Your task to perform on an android device: View the shopping cart on walmart. Add "logitech g933" to the cart on walmart, then select checkout. Image 0: 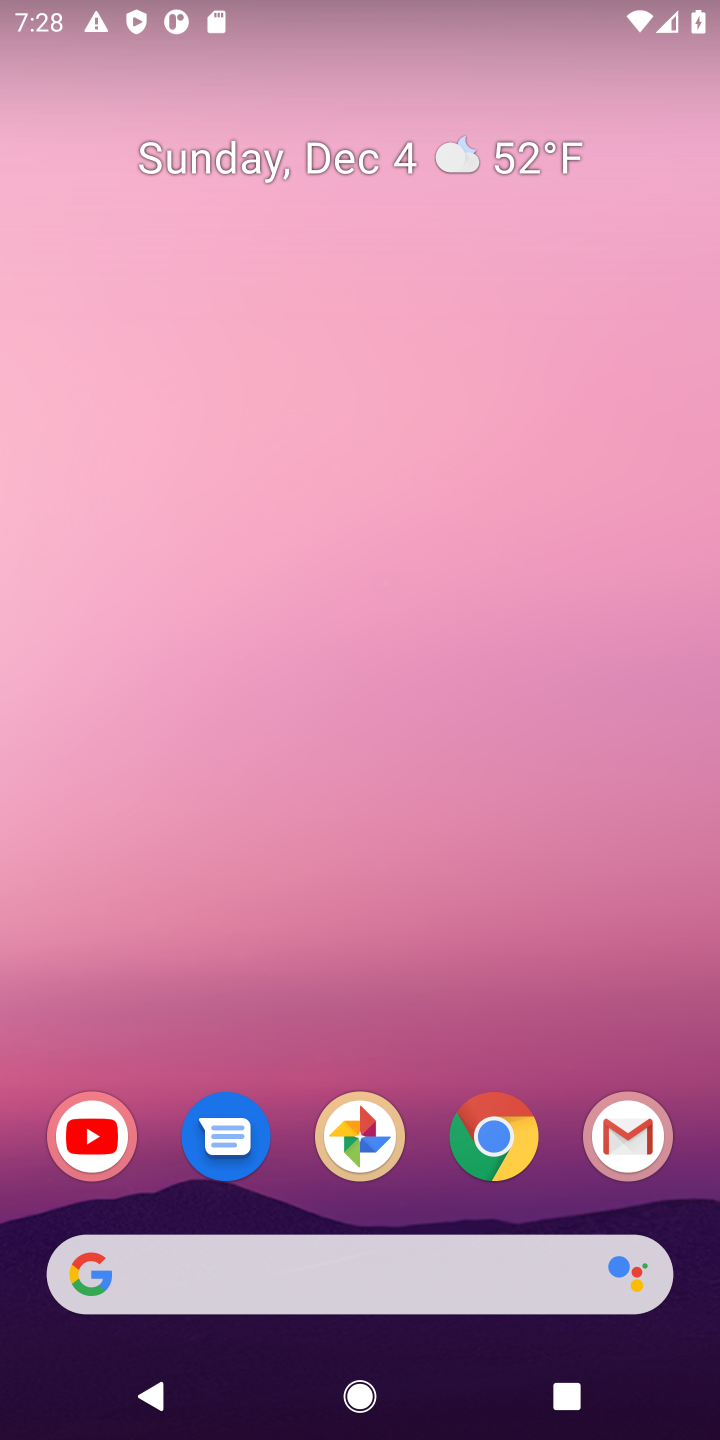
Step 0: click (487, 1139)
Your task to perform on an android device: View the shopping cart on walmart. Add "logitech g933" to the cart on walmart, then select checkout. Image 1: 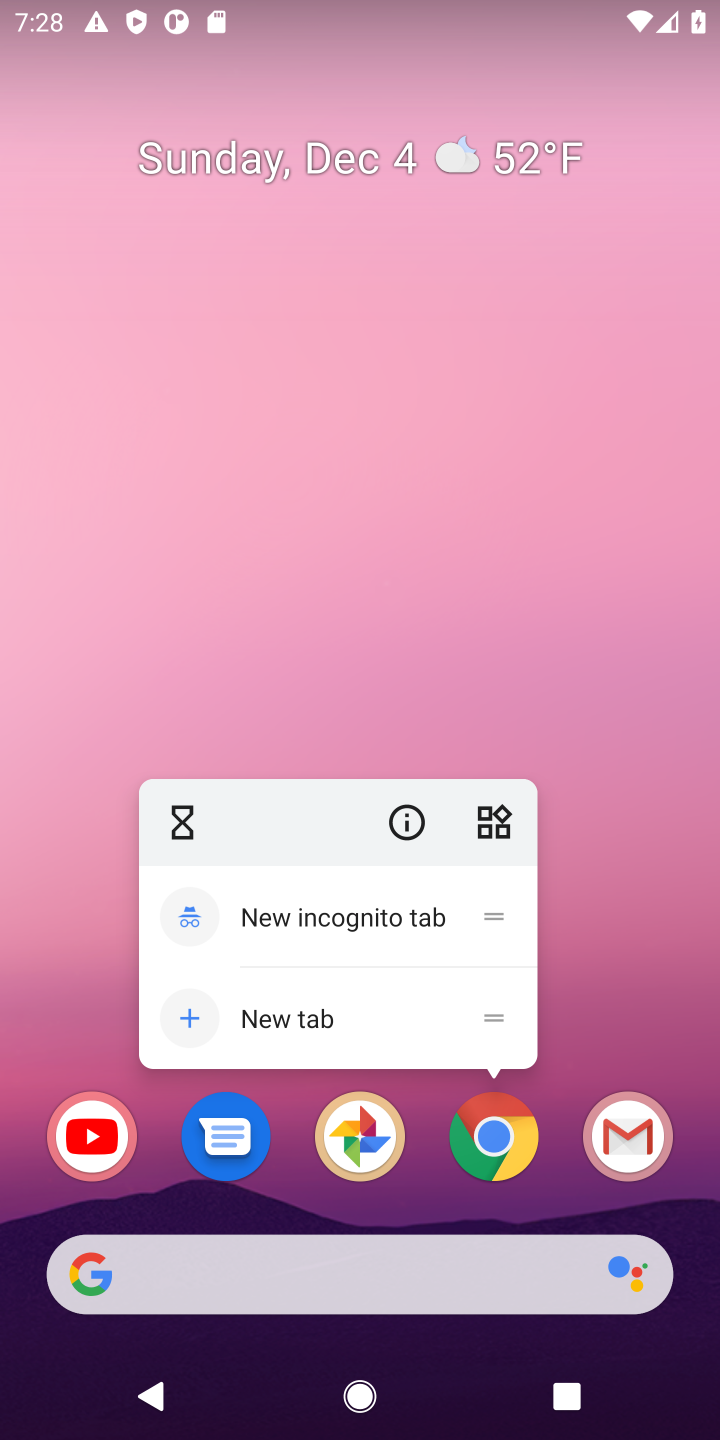
Step 1: click (487, 1139)
Your task to perform on an android device: View the shopping cart on walmart. Add "logitech g933" to the cart on walmart, then select checkout. Image 2: 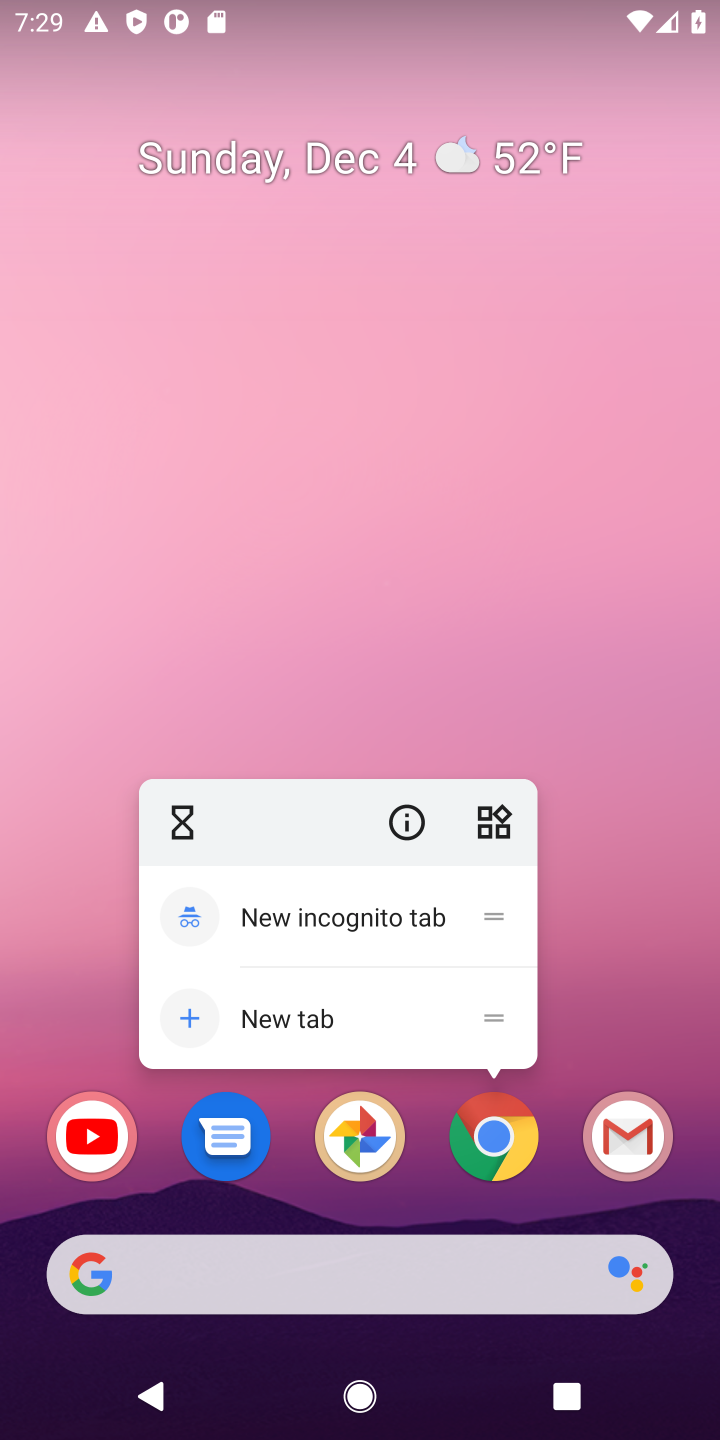
Step 2: click (495, 1146)
Your task to perform on an android device: View the shopping cart on walmart. Add "logitech g933" to the cart on walmart, then select checkout. Image 3: 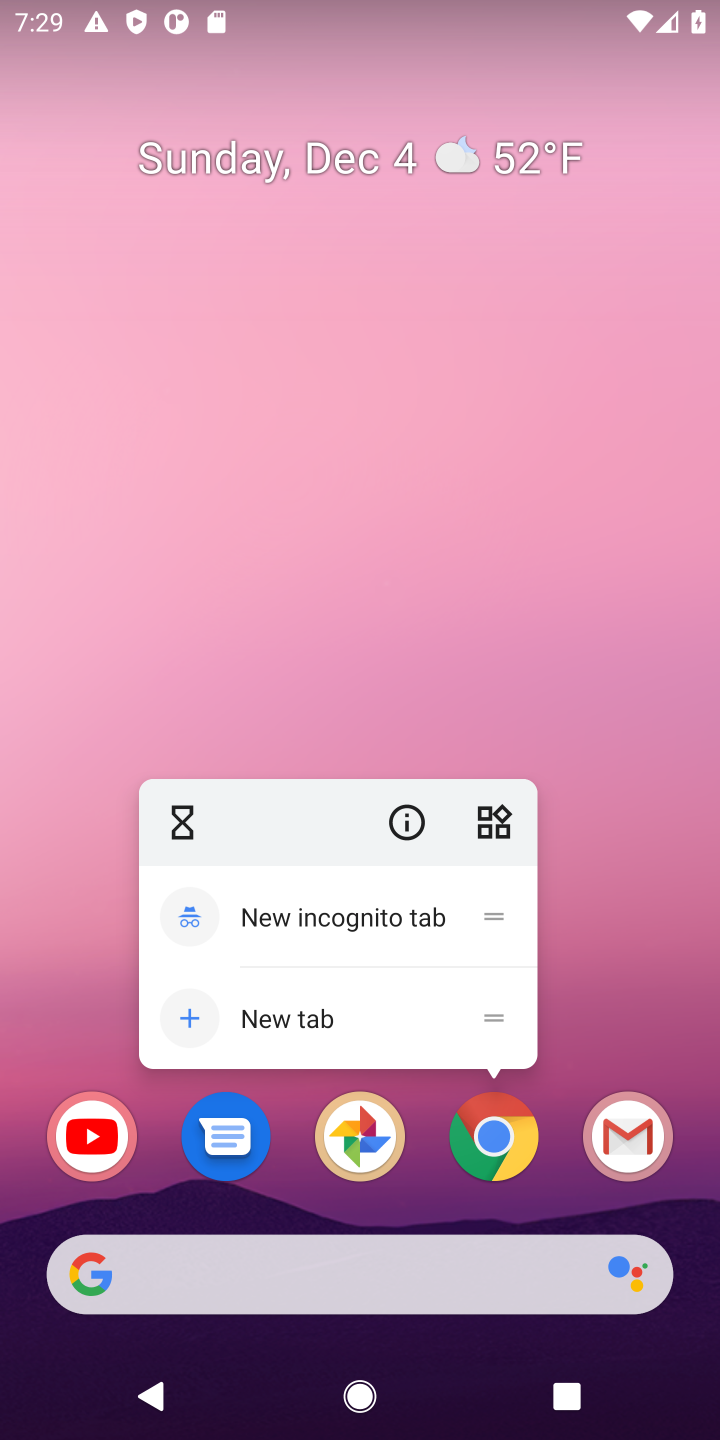
Step 3: click (495, 1146)
Your task to perform on an android device: View the shopping cart on walmart. Add "logitech g933" to the cart on walmart, then select checkout. Image 4: 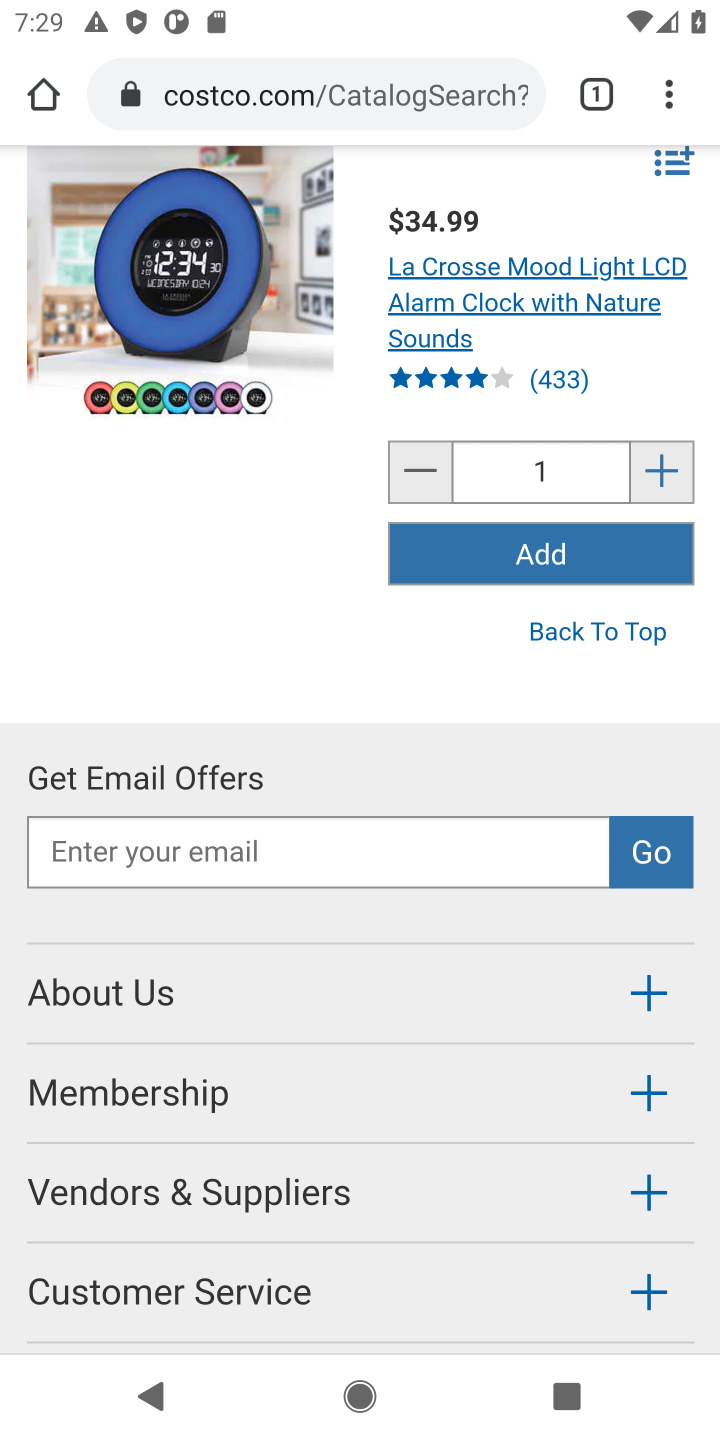
Step 4: click (327, 104)
Your task to perform on an android device: View the shopping cart on walmart. Add "logitech g933" to the cart on walmart, then select checkout. Image 5: 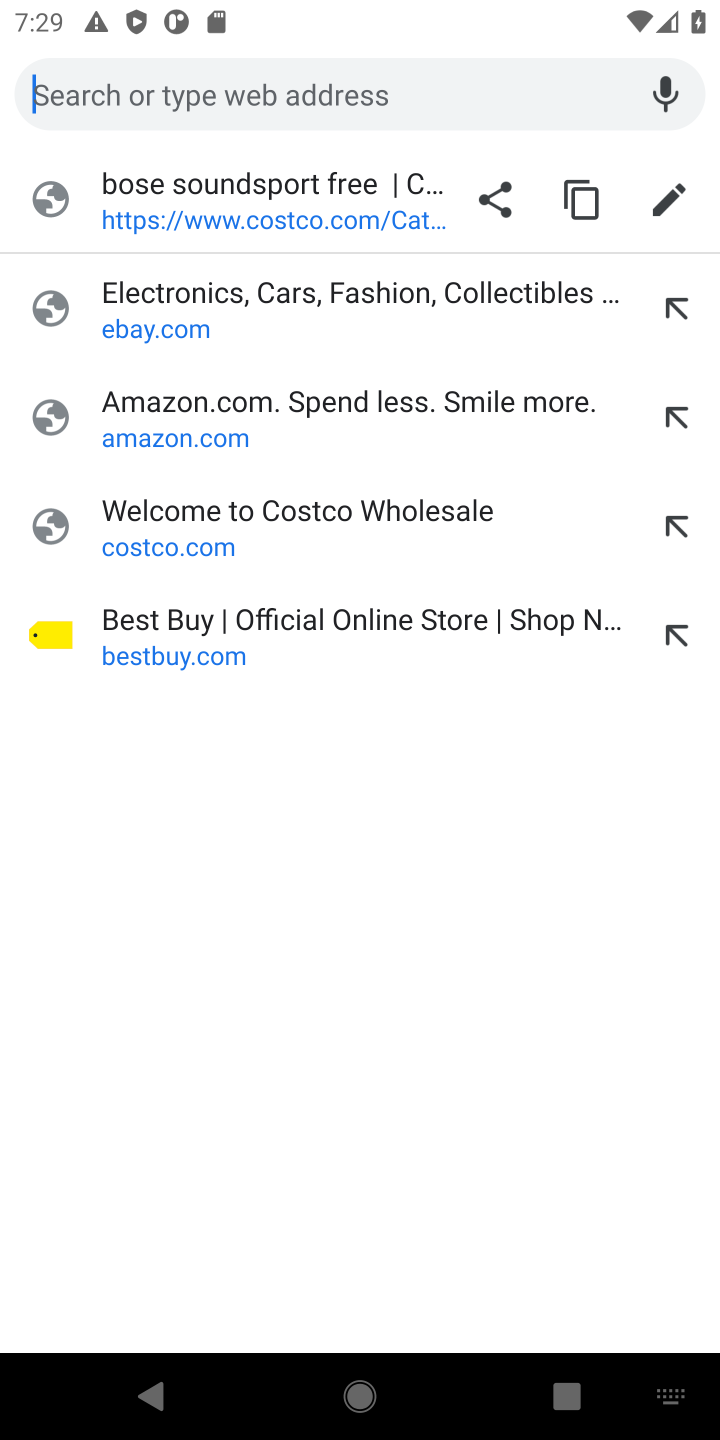
Step 5: type "walmart.com"
Your task to perform on an android device: View the shopping cart on walmart. Add "logitech g933" to the cart on walmart, then select checkout. Image 6: 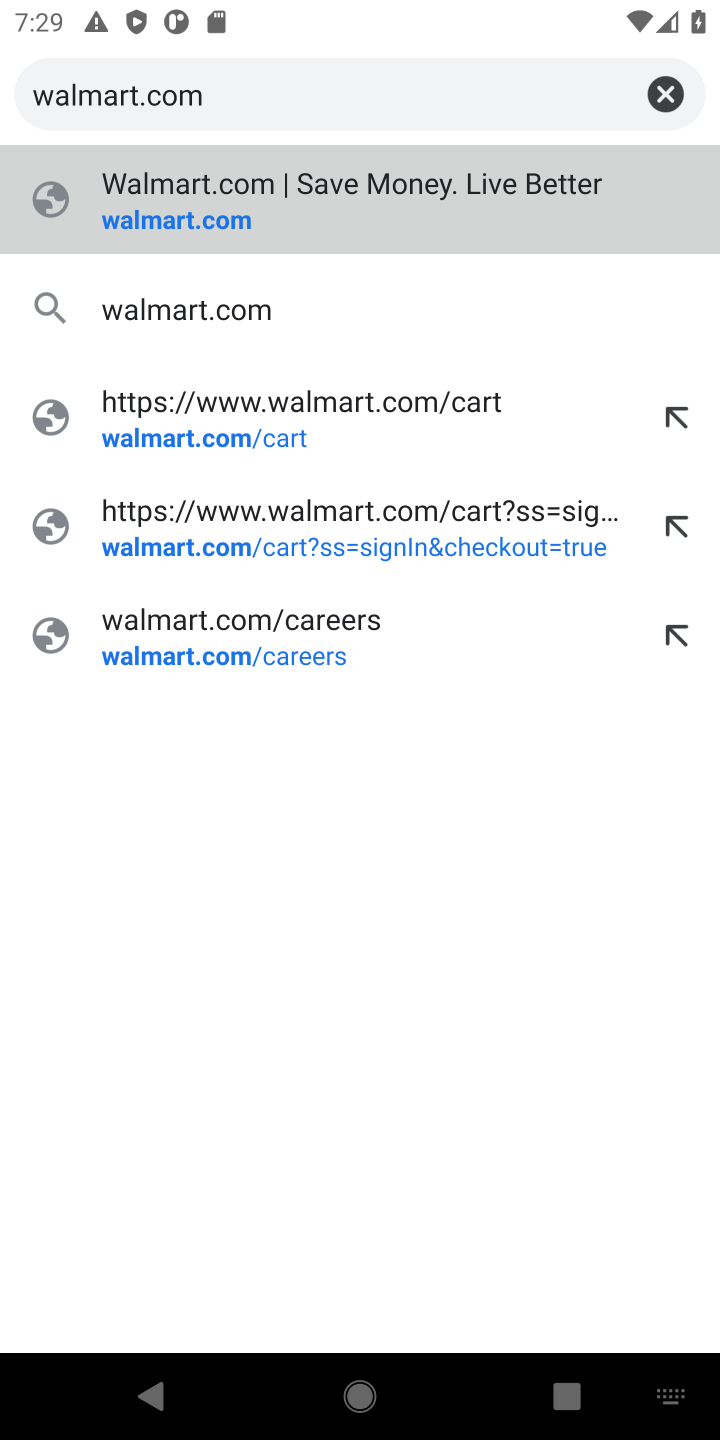
Step 6: click (124, 200)
Your task to perform on an android device: View the shopping cart on walmart. Add "logitech g933" to the cart on walmart, then select checkout. Image 7: 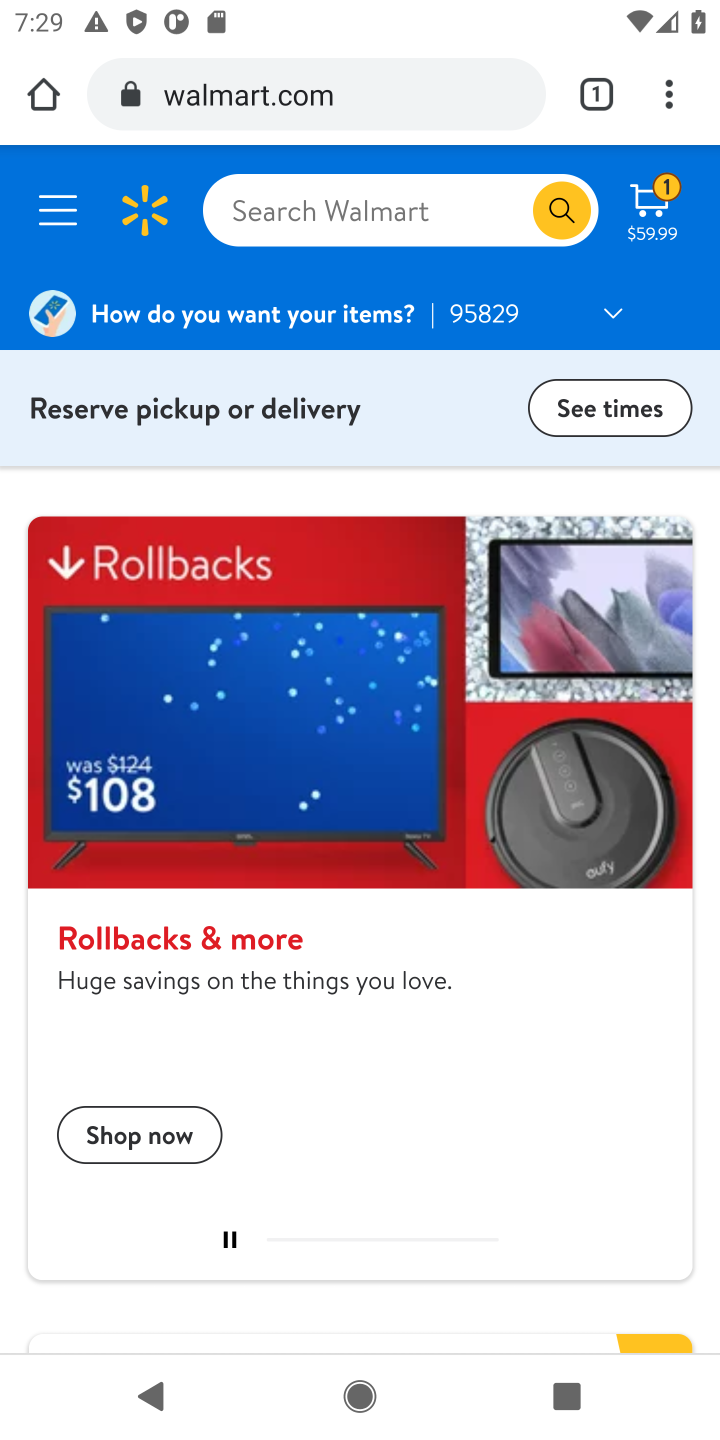
Step 7: click (651, 192)
Your task to perform on an android device: View the shopping cart on walmart. Add "logitech g933" to the cart on walmart, then select checkout. Image 8: 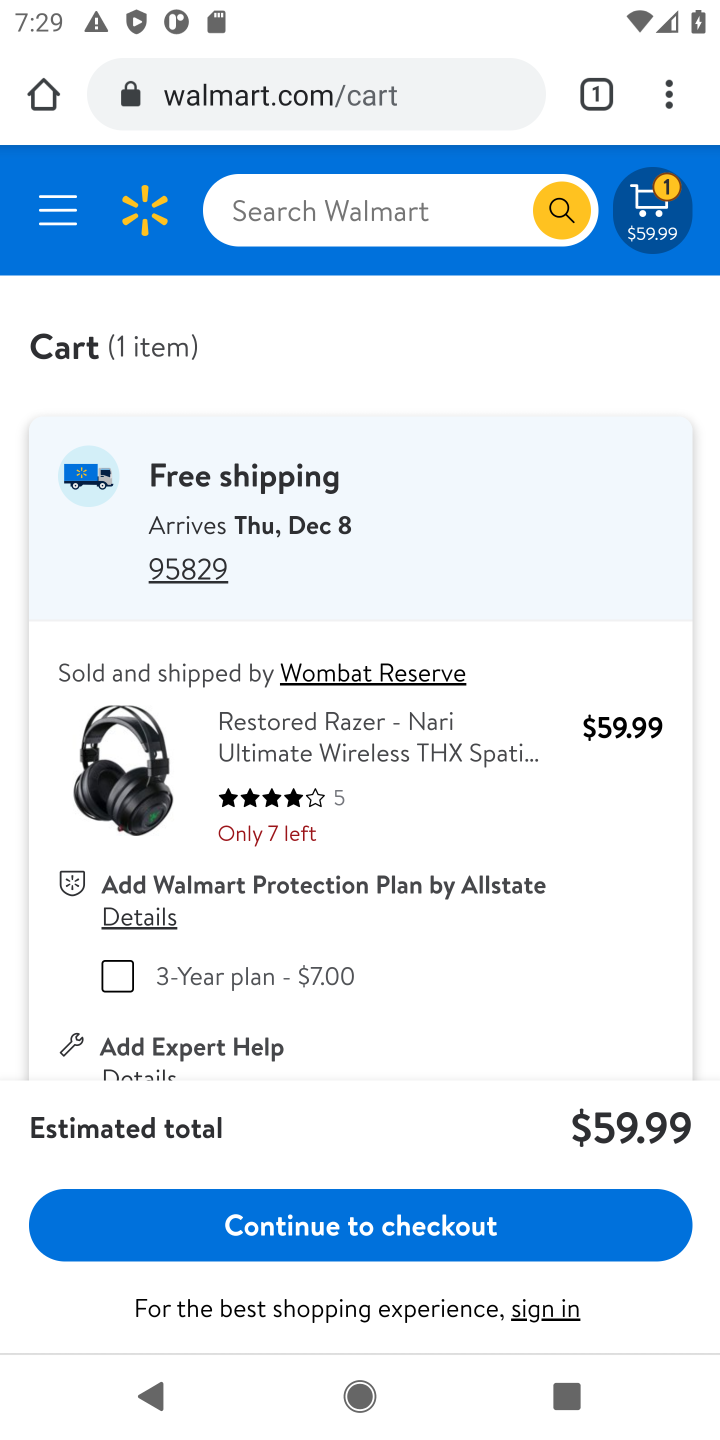
Step 8: click (324, 217)
Your task to perform on an android device: View the shopping cart on walmart. Add "logitech g933" to the cart on walmart, then select checkout. Image 9: 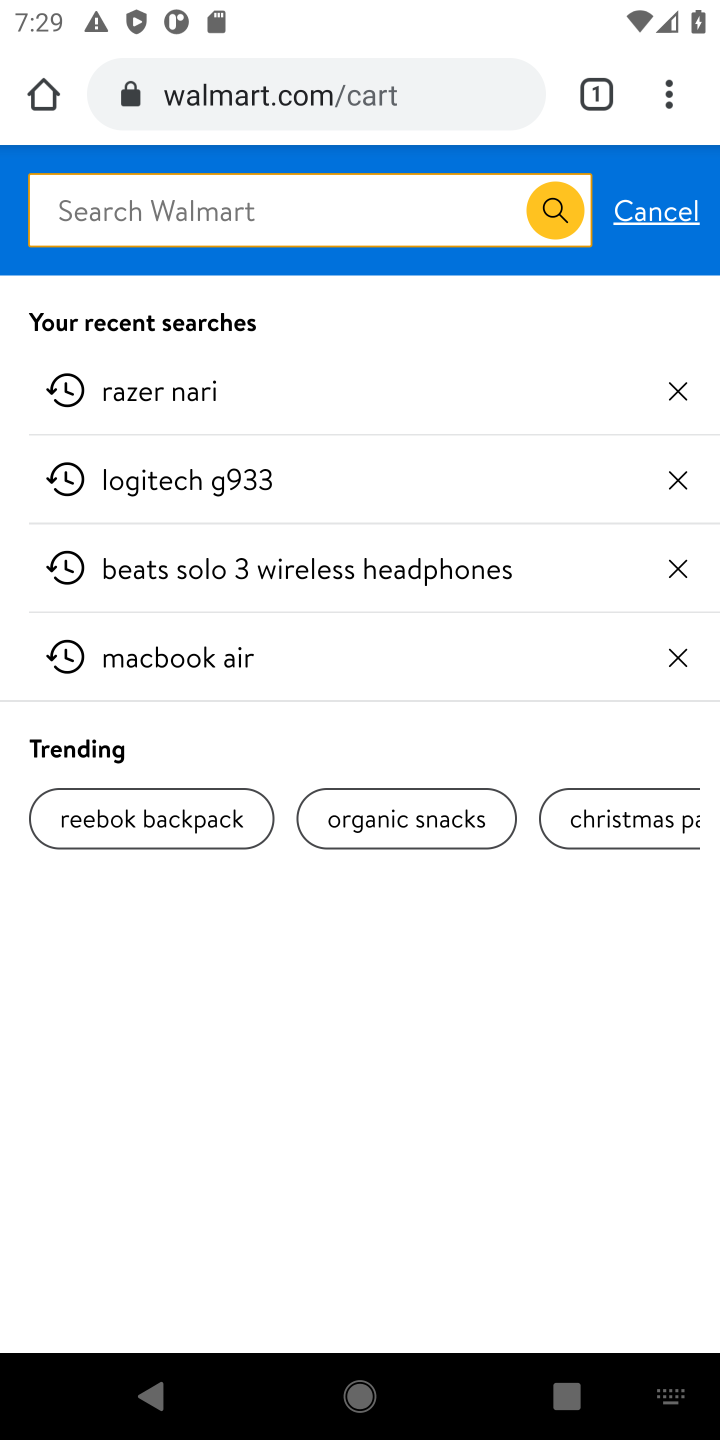
Step 9: type "logitech g933"
Your task to perform on an android device: View the shopping cart on walmart. Add "logitech g933" to the cart on walmart, then select checkout. Image 10: 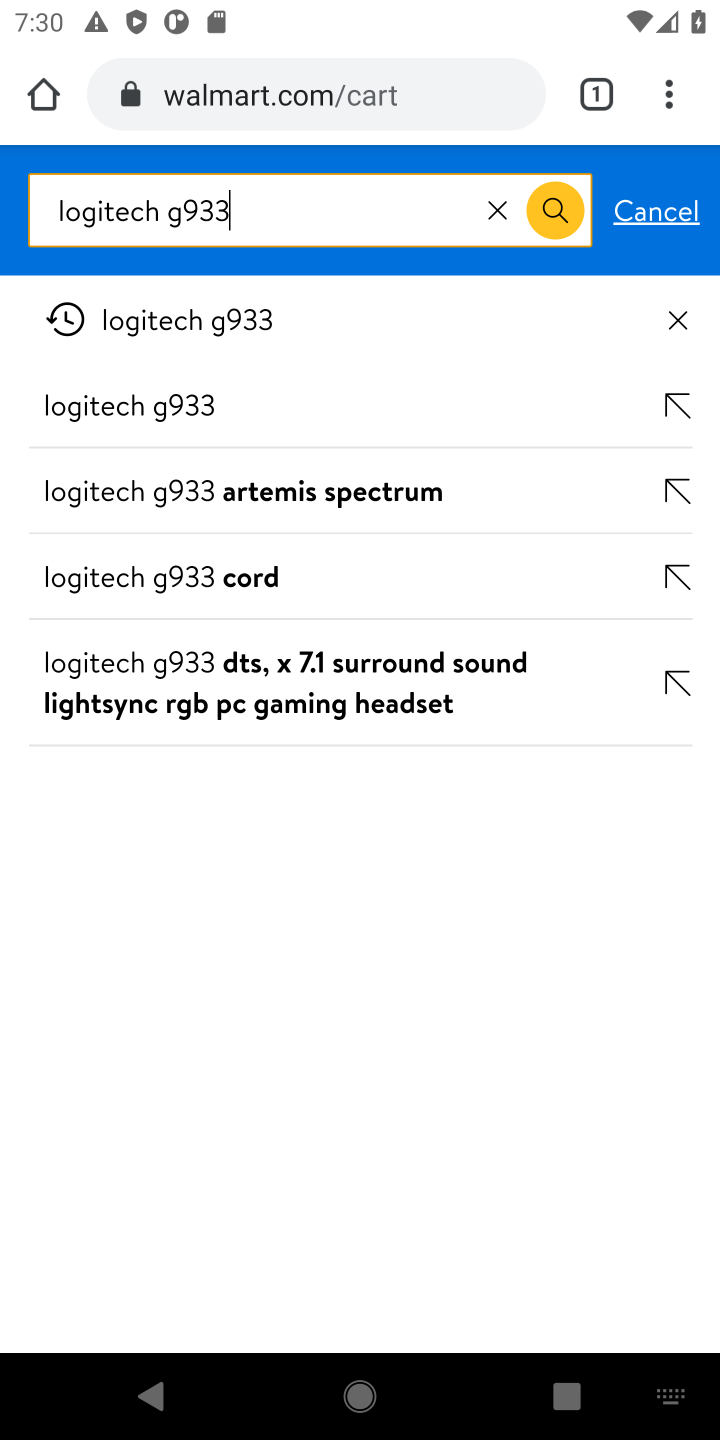
Step 10: click (215, 320)
Your task to perform on an android device: View the shopping cart on walmart. Add "logitech g933" to the cart on walmart, then select checkout. Image 11: 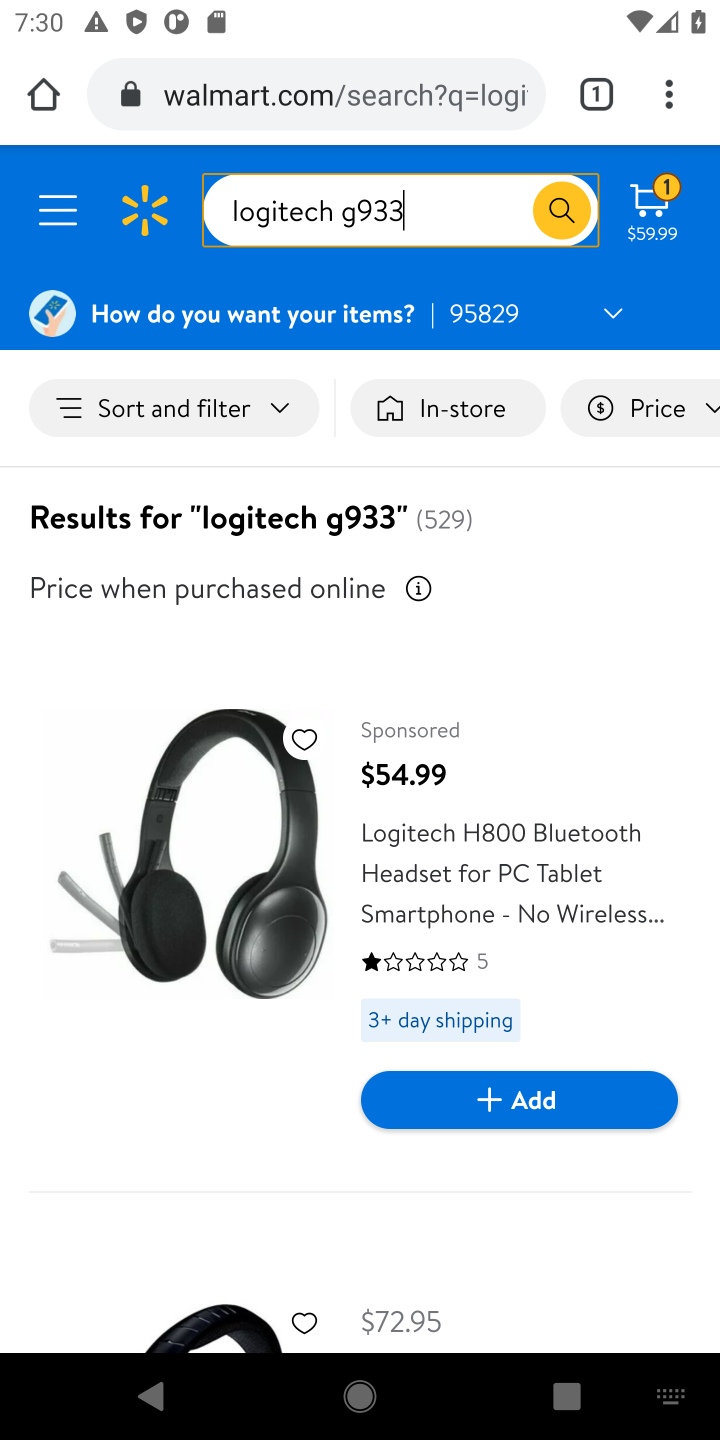
Step 11: drag from (526, 756) to (584, 437)
Your task to perform on an android device: View the shopping cart on walmart. Add "logitech g933" to the cart on walmart, then select checkout. Image 12: 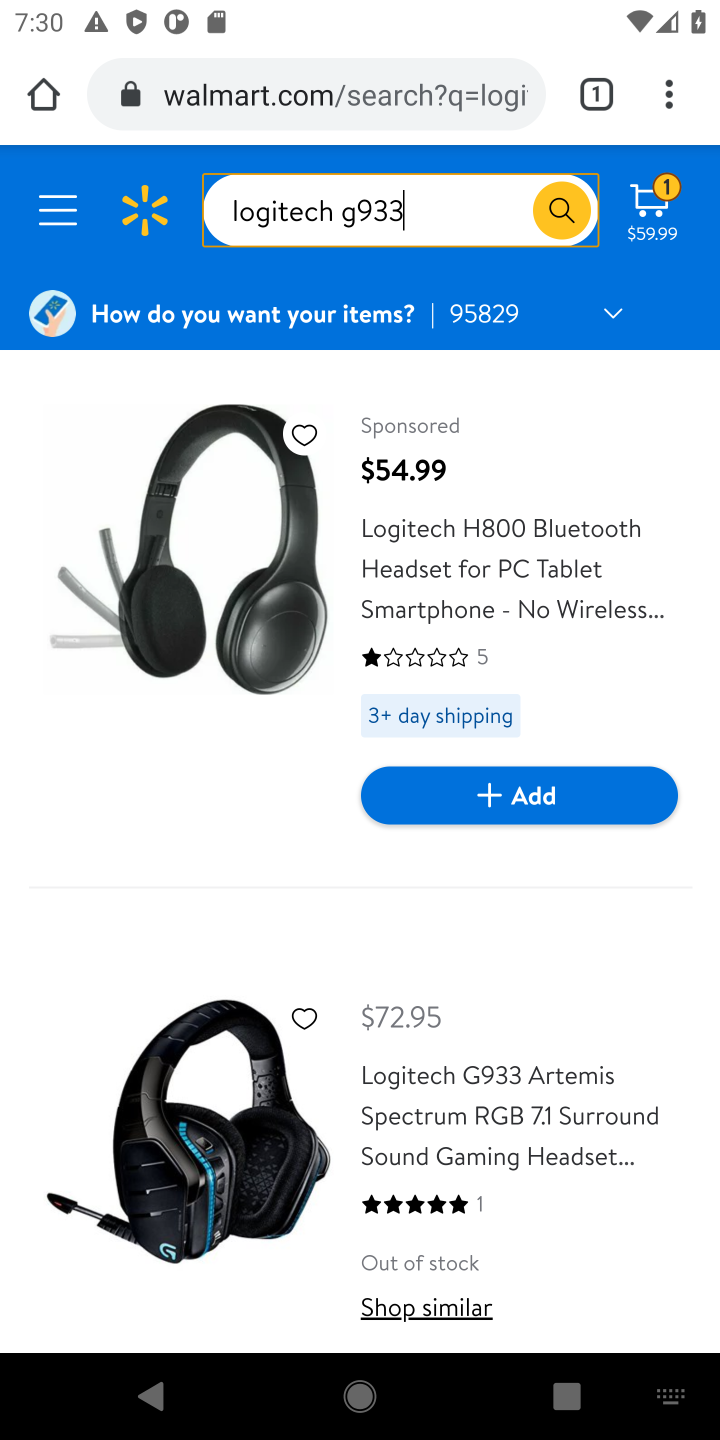
Step 12: drag from (528, 901) to (549, 567)
Your task to perform on an android device: View the shopping cart on walmart. Add "logitech g933" to the cart on walmart, then select checkout. Image 13: 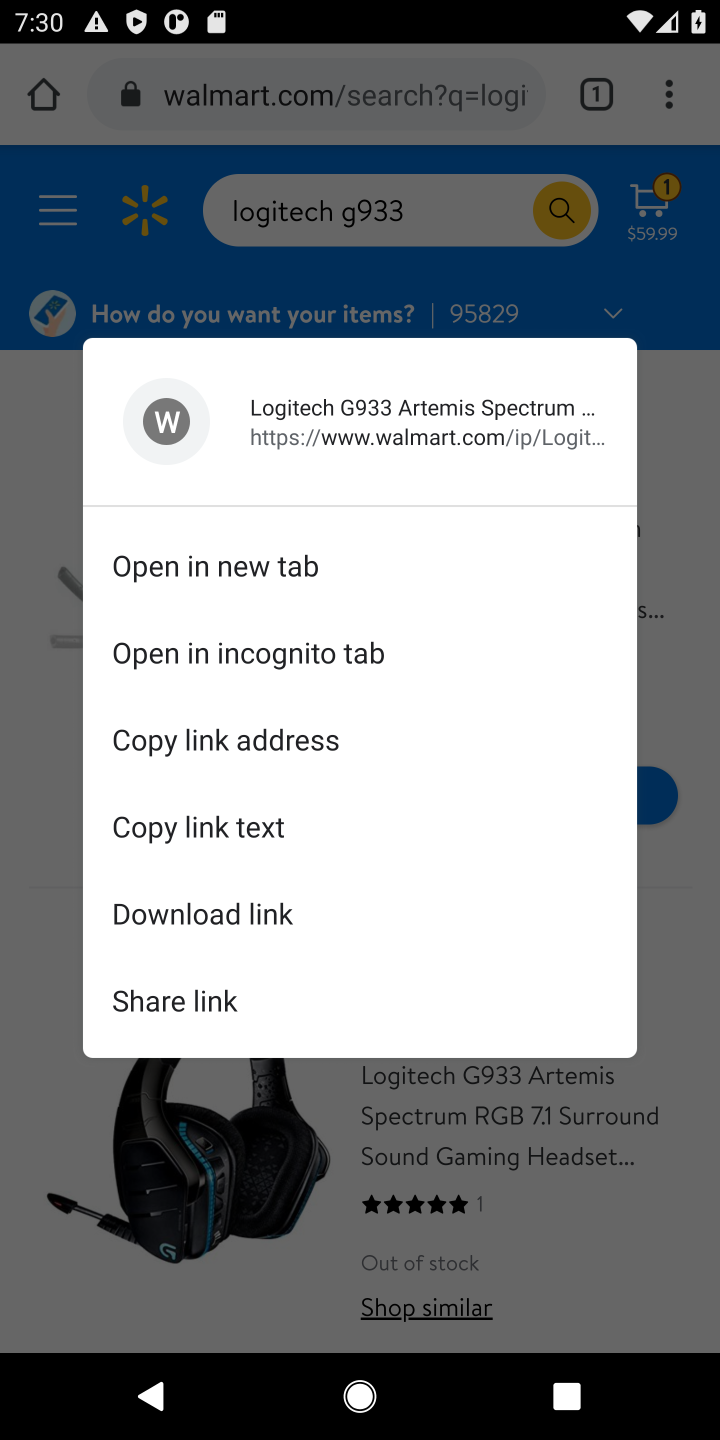
Step 13: drag from (656, 1148) to (717, 506)
Your task to perform on an android device: View the shopping cart on walmart. Add "logitech g933" to the cart on walmart, then select checkout. Image 14: 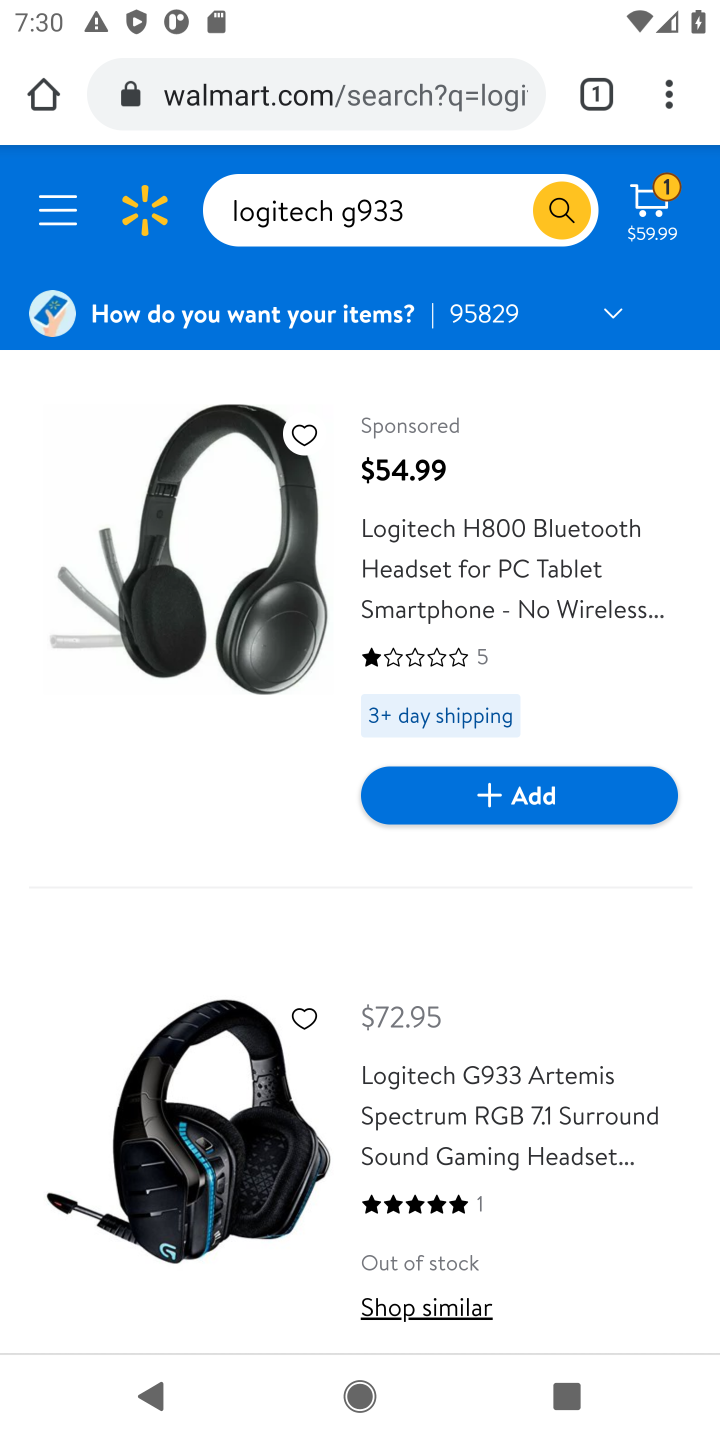
Step 14: drag from (633, 1056) to (629, 491)
Your task to perform on an android device: View the shopping cart on walmart. Add "logitech g933" to the cart on walmart, then select checkout. Image 15: 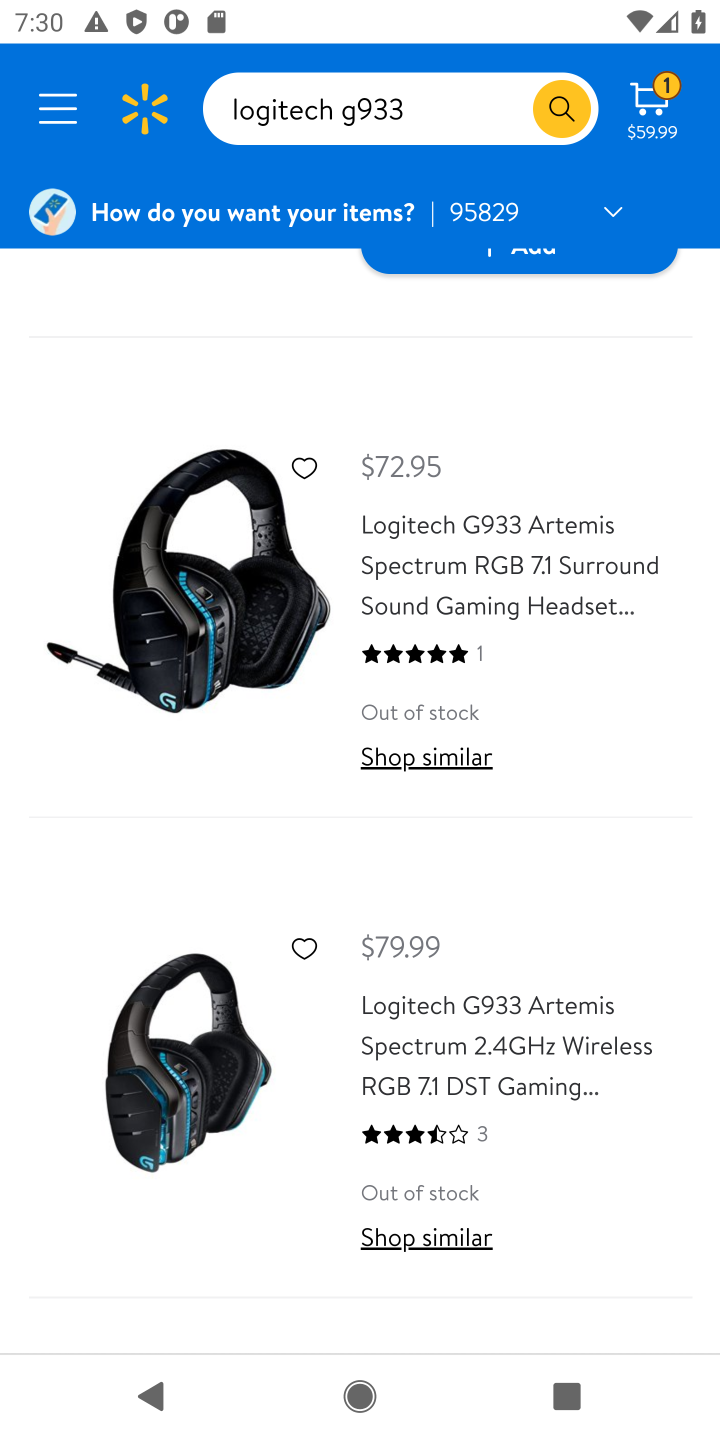
Step 15: drag from (620, 1015) to (605, 420)
Your task to perform on an android device: View the shopping cart on walmart. Add "logitech g933" to the cart on walmart, then select checkout. Image 16: 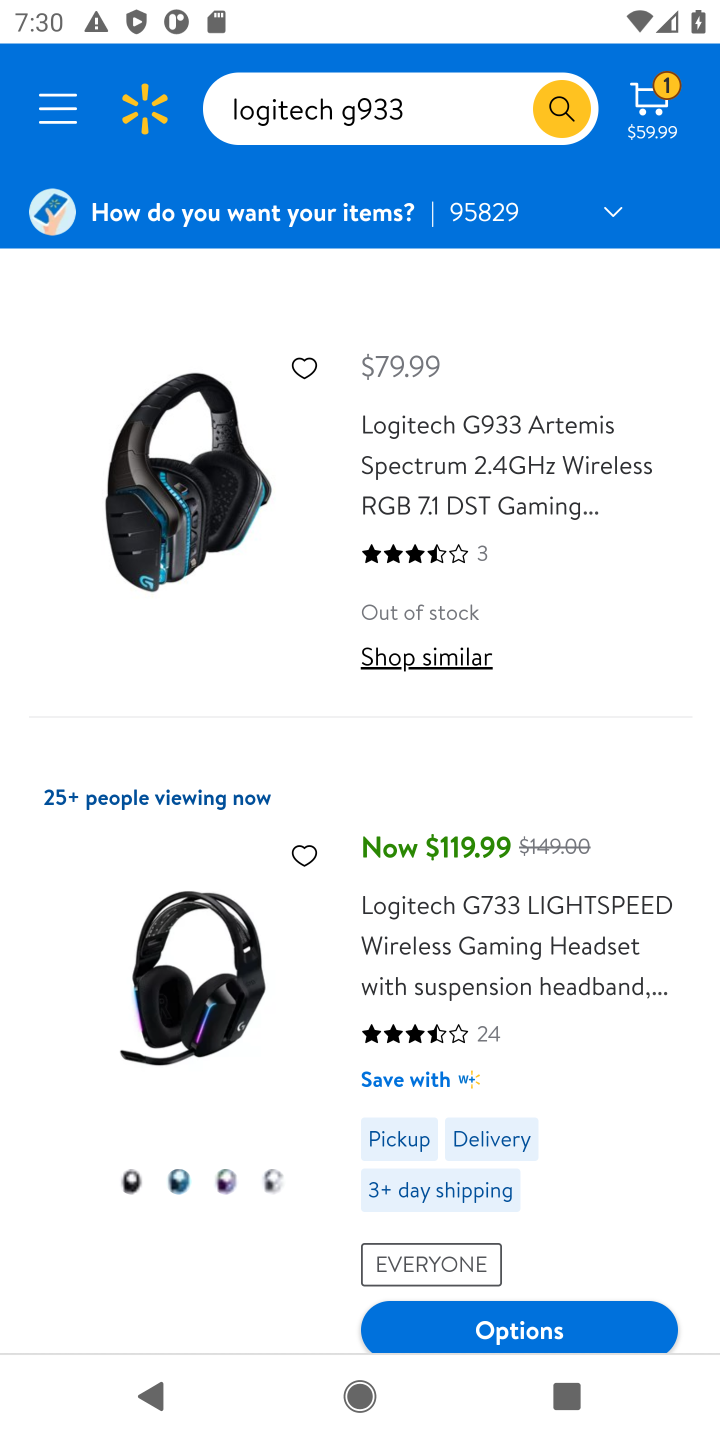
Step 16: drag from (593, 1030) to (633, 602)
Your task to perform on an android device: View the shopping cart on walmart. Add "logitech g933" to the cart on walmart, then select checkout. Image 17: 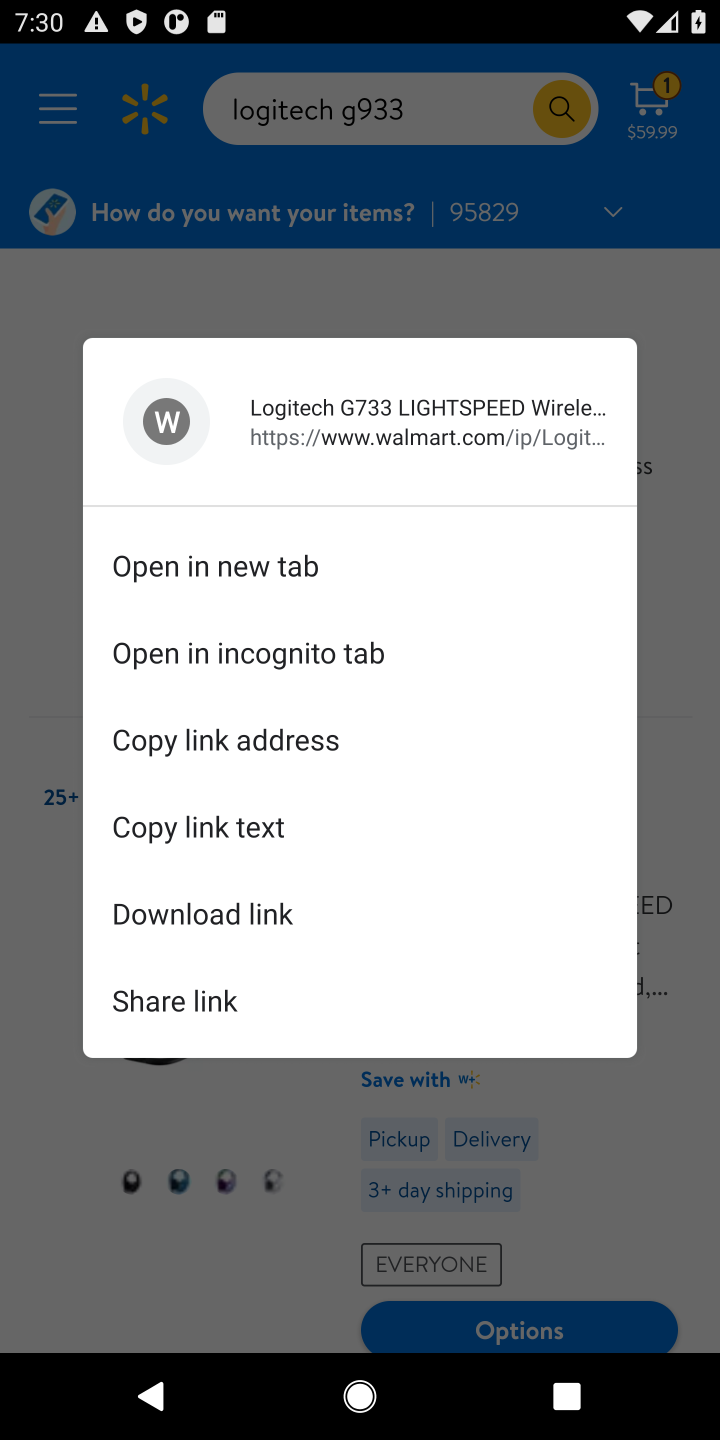
Step 17: drag from (693, 1130) to (712, 445)
Your task to perform on an android device: View the shopping cart on walmart. Add "logitech g933" to the cart on walmart, then select checkout. Image 18: 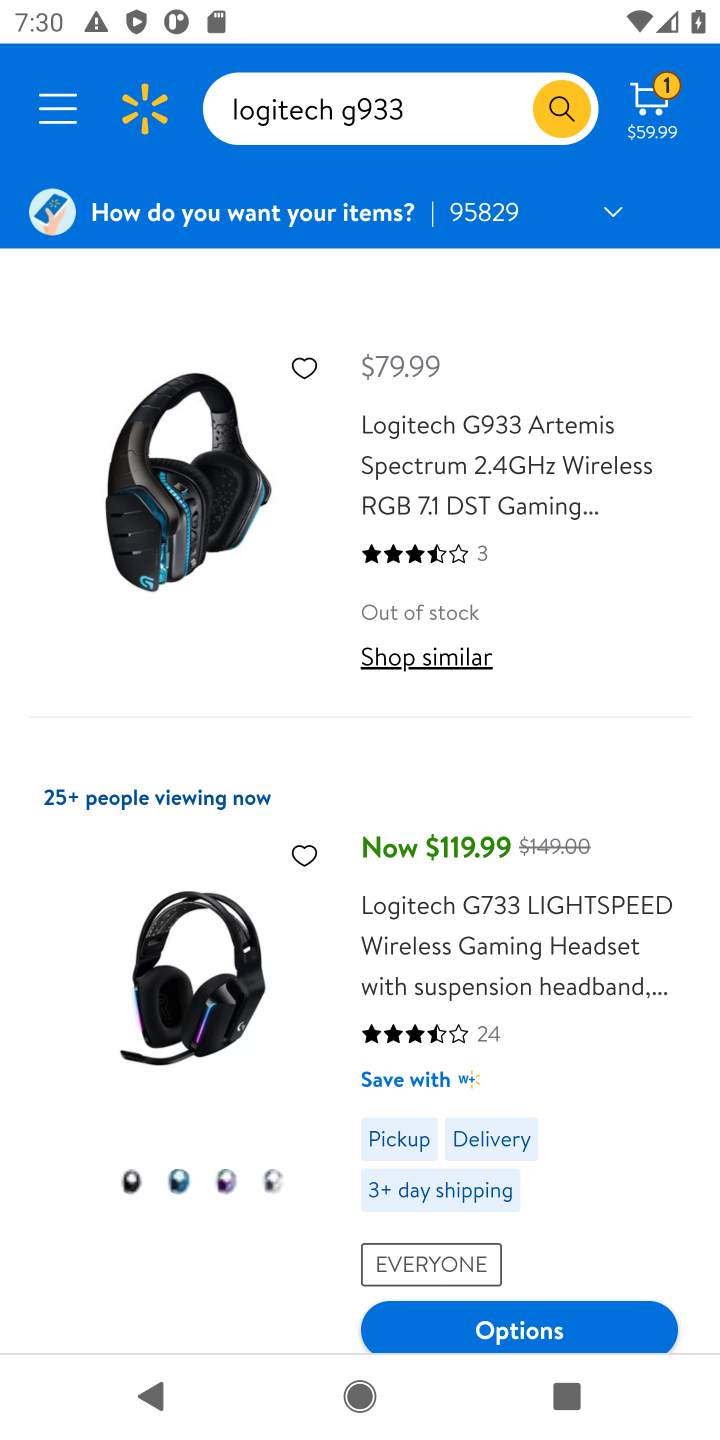
Step 18: drag from (626, 1036) to (616, 484)
Your task to perform on an android device: View the shopping cart on walmart. Add "logitech g933" to the cart on walmart, then select checkout. Image 19: 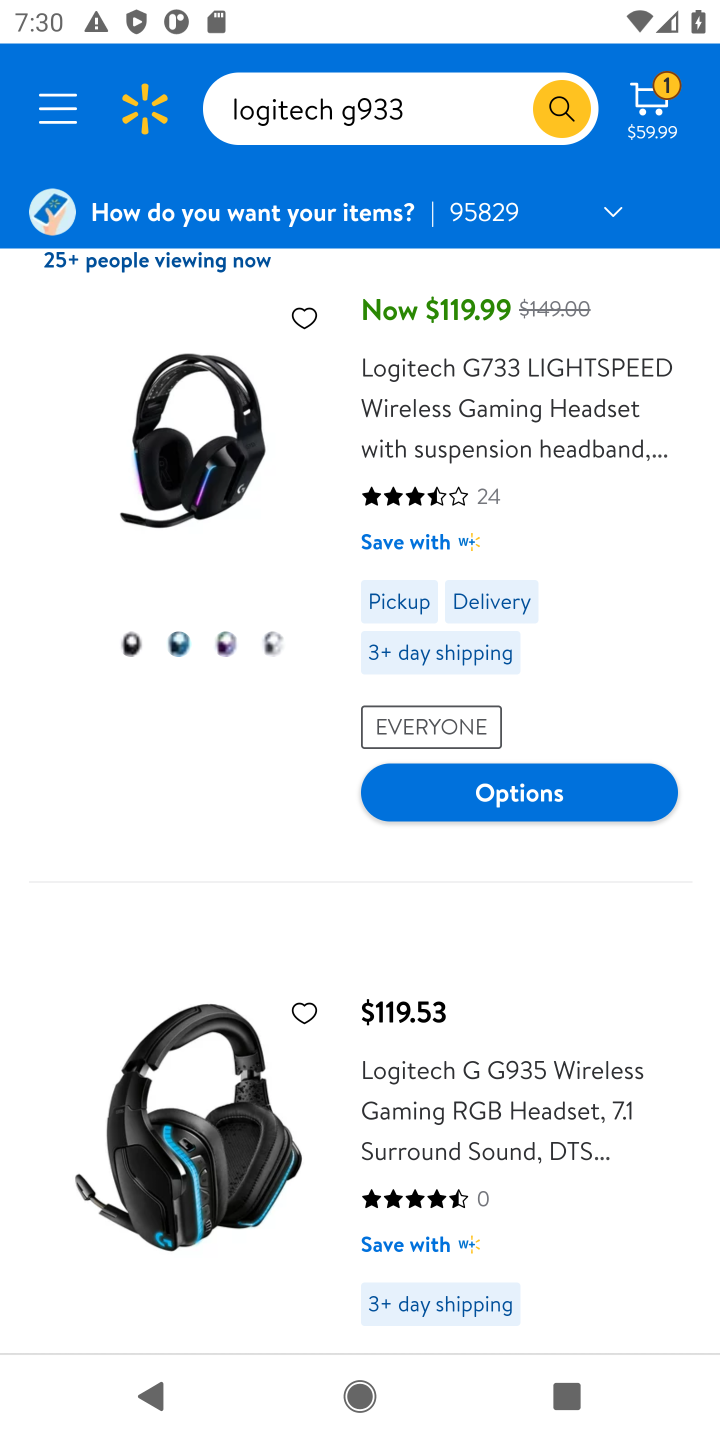
Step 19: drag from (555, 1080) to (615, 466)
Your task to perform on an android device: View the shopping cart on walmart. Add "logitech g933" to the cart on walmart, then select checkout. Image 20: 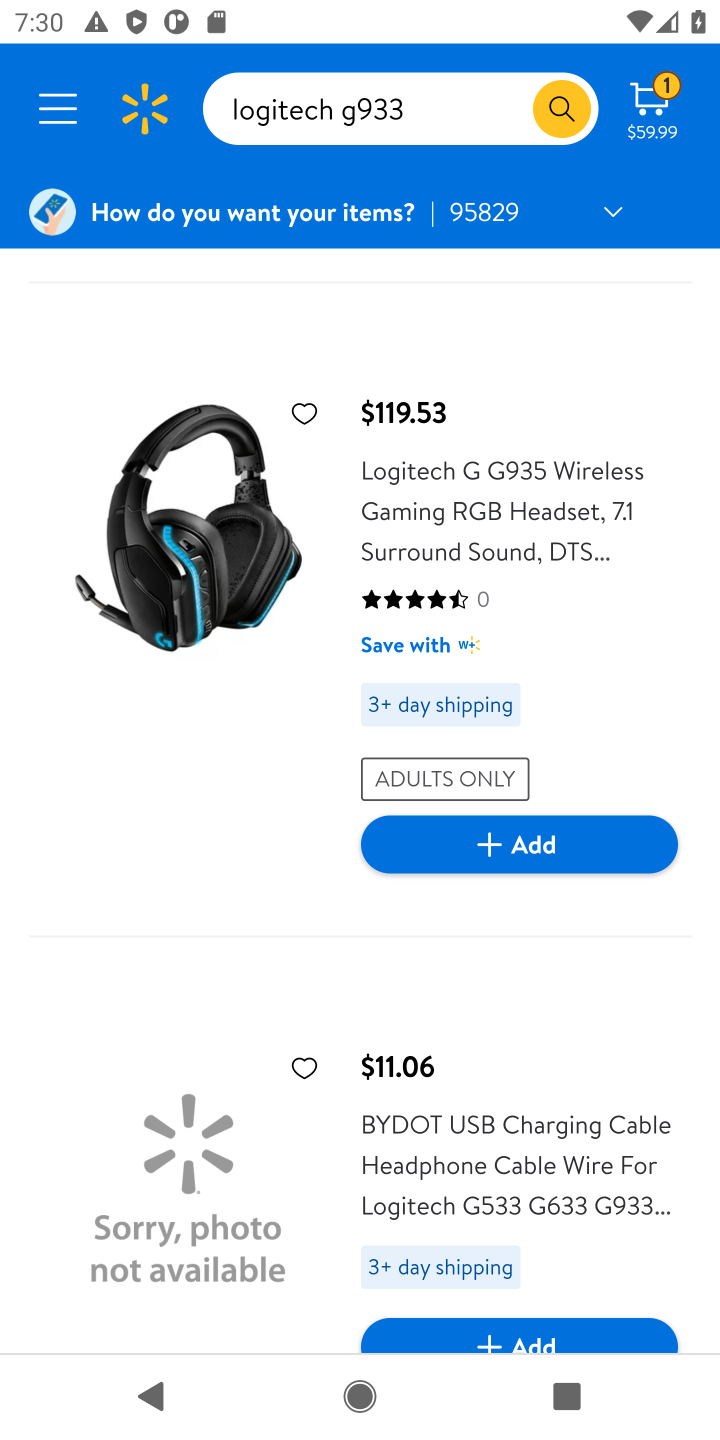
Step 20: drag from (580, 1050) to (574, 429)
Your task to perform on an android device: View the shopping cart on walmart. Add "logitech g933" to the cart on walmart, then select checkout. Image 21: 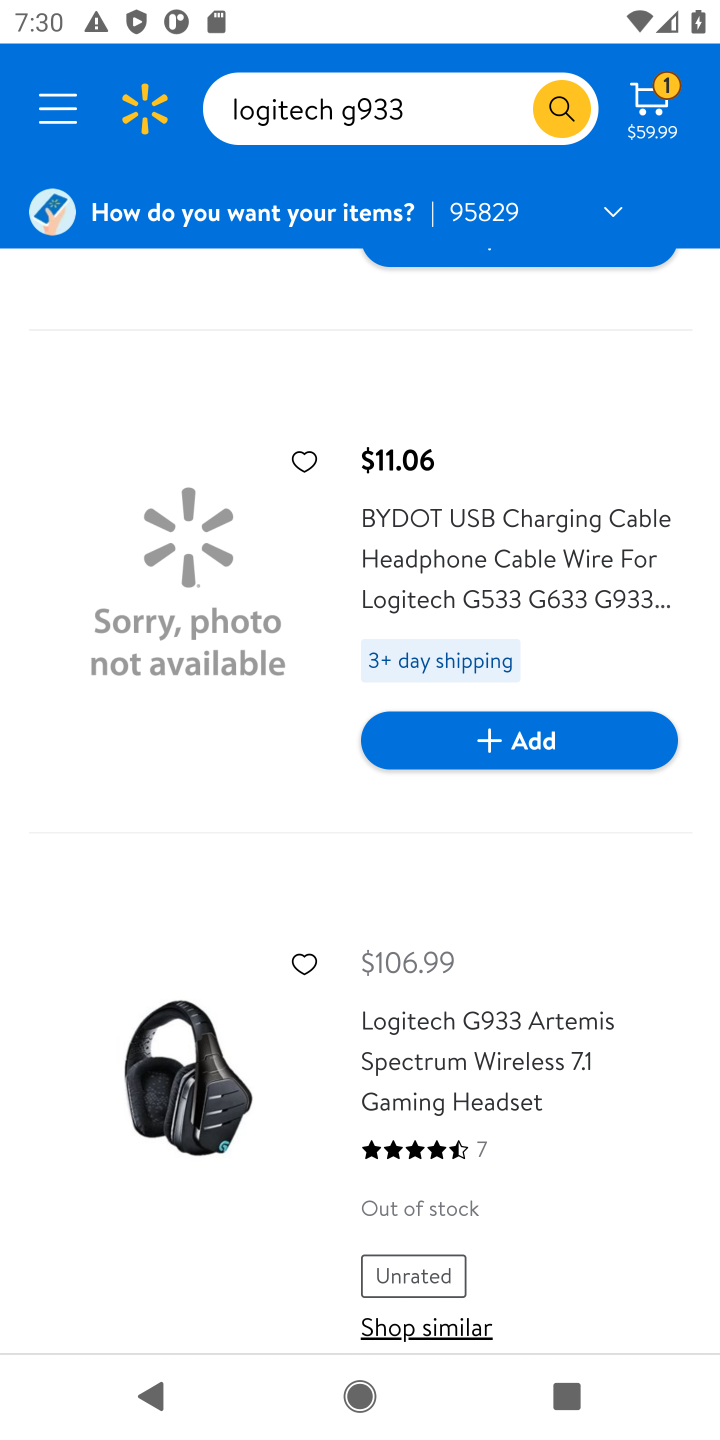
Step 21: click (519, 753)
Your task to perform on an android device: View the shopping cart on walmart. Add "logitech g933" to the cart on walmart, then select checkout. Image 22: 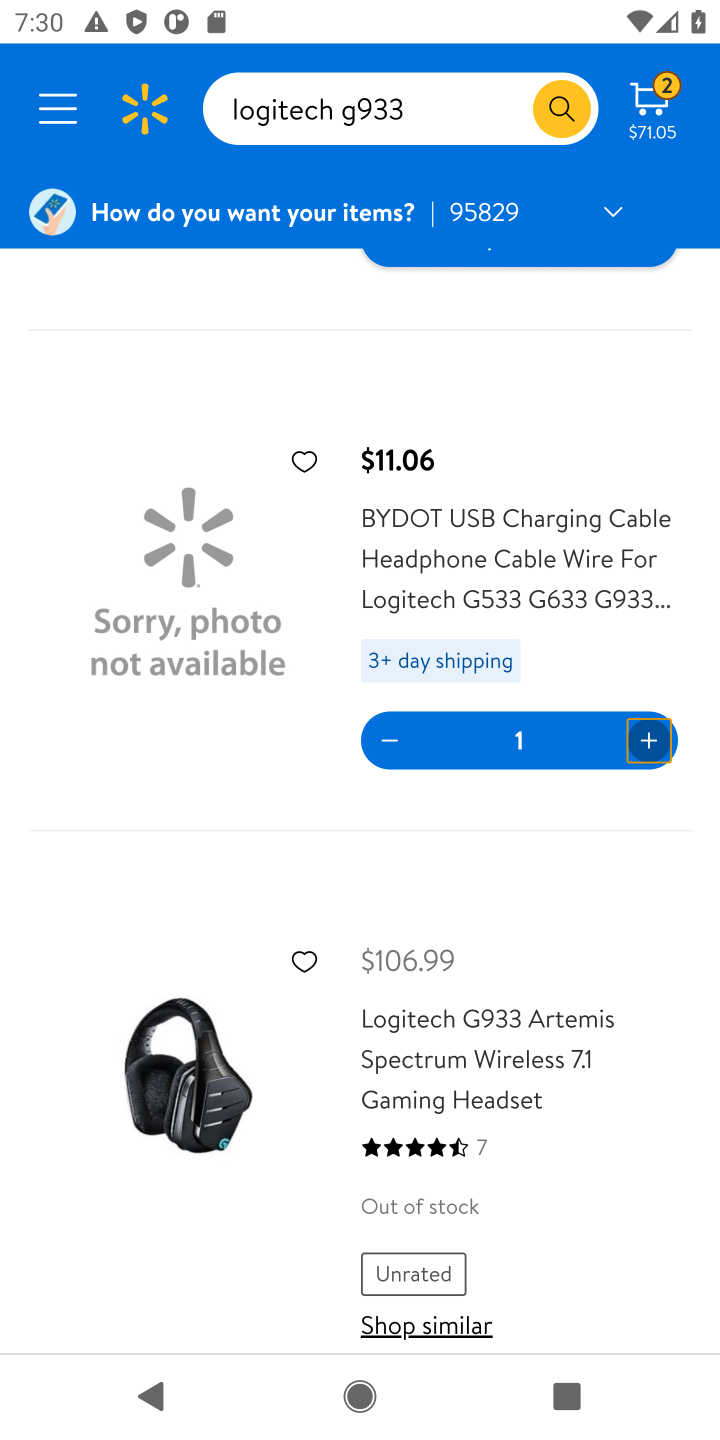
Step 22: click (655, 104)
Your task to perform on an android device: View the shopping cart on walmart. Add "logitech g933" to the cart on walmart, then select checkout. Image 23: 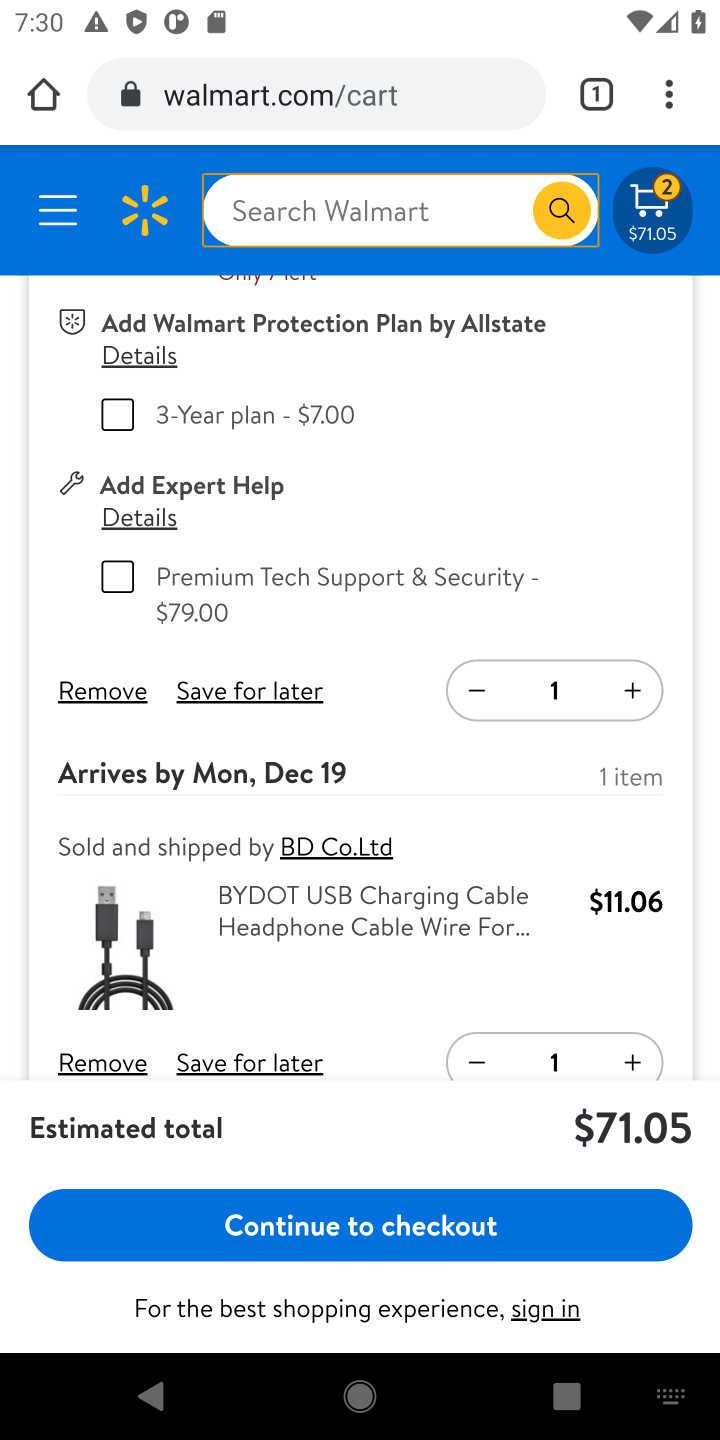
Step 23: click (362, 1207)
Your task to perform on an android device: View the shopping cart on walmart. Add "logitech g933" to the cart on walmart, then select checkout. Image 24: 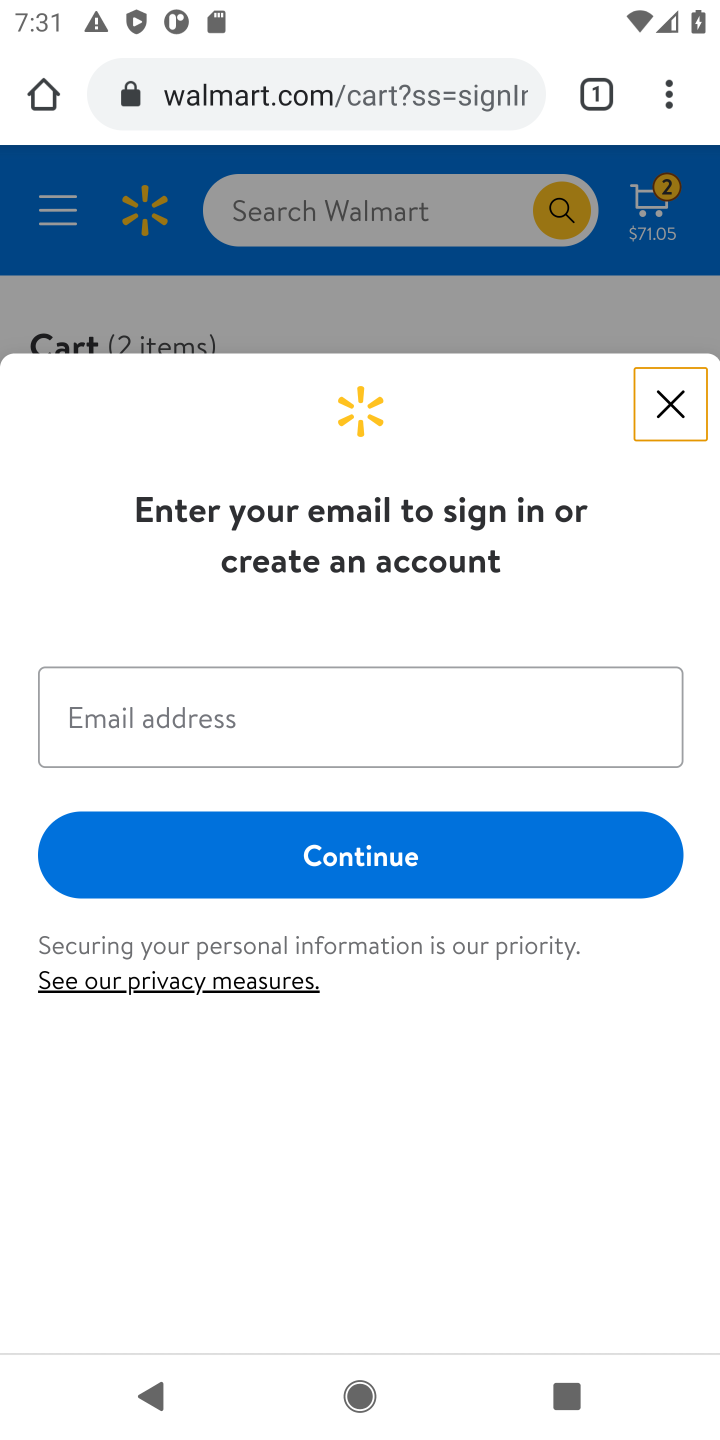
Step 24: task complete